Your task to perform on an android device: Turn on the flashlight Image 0: 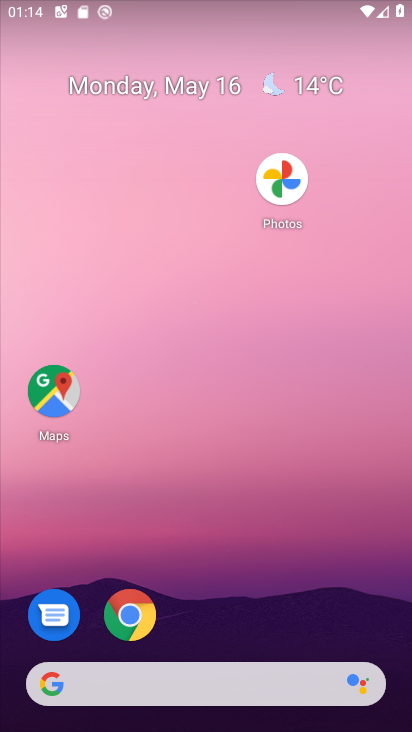
Step 0: drag from (361, 601) to (311, 223)
Your task to perform on an android device: Turn on the flashlight Image 1: 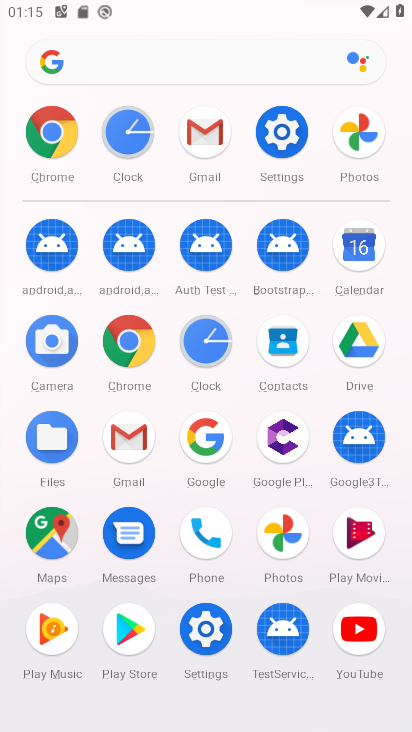
Step 1: click (285, 157)
Your task to perform on an android device: Turn on the flashlight Image 2: 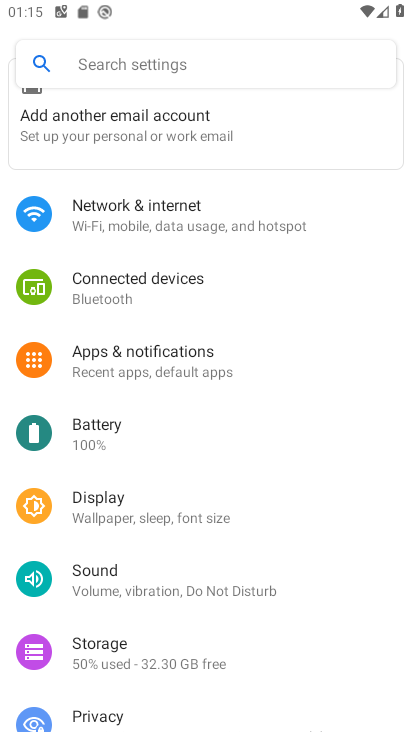
Step 2: type "flashlight"
Your task to perform on an android device: Turn on the flashlight Image 3: 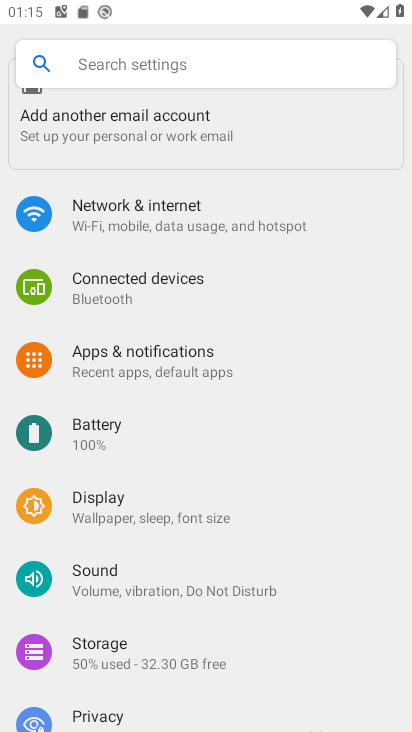
Step 3: click (183, 61)
Your task to perform on an android device: Turn on the flashlight Image 4: 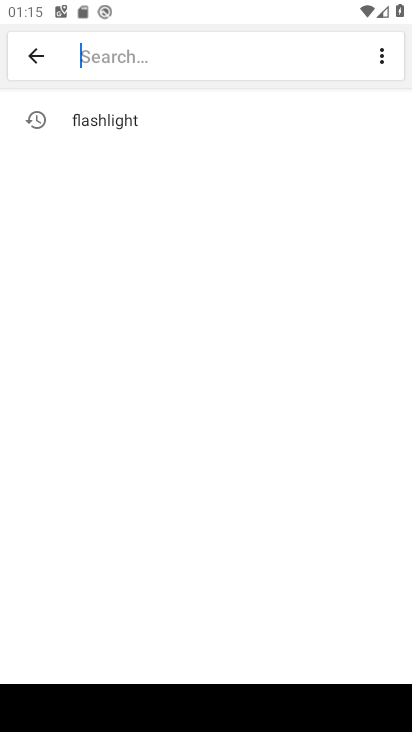
Step 4: type "fl"
Your task to perform on an android device: Turn on the flashlight Image 5: 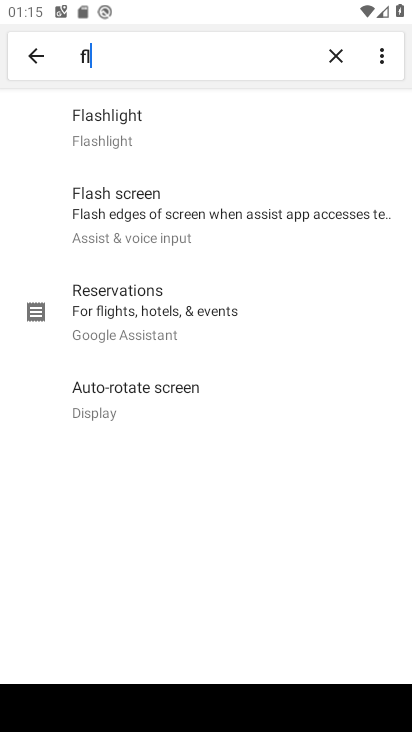
Step 5: type "flashlight"
Your task to perform on an android device: Turn on the flashlight Image 6: 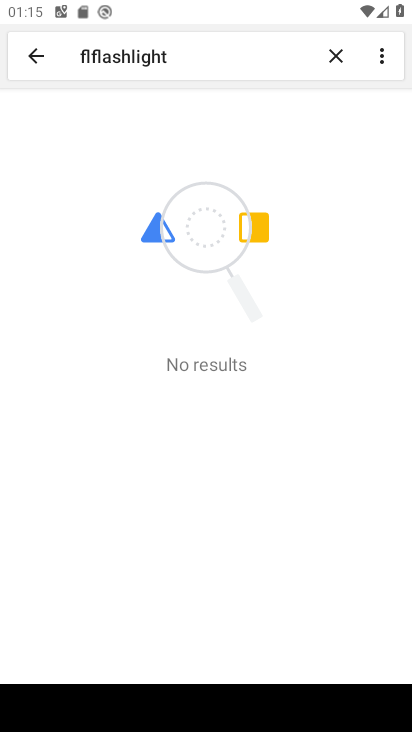
Step 6: click (173, 122)
Your task to perform on an android device: Turn on the flashlight Image 7: 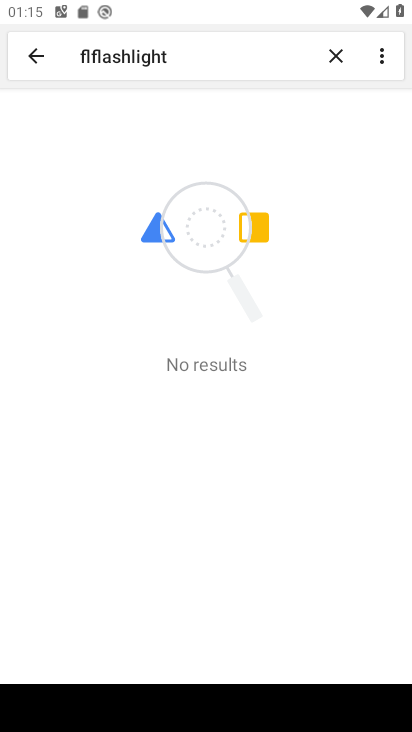
Step 7: click (338, 64)
Your task to perform on an android device: Turn on the flashlight Image 8: 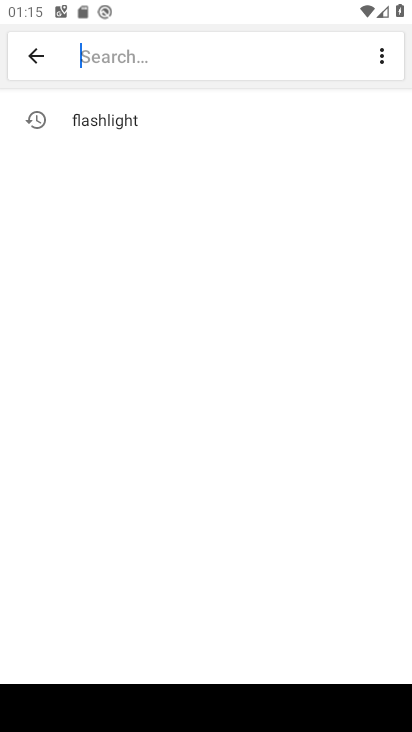
Step 8: click (190, 139)
Your task to perform on an android device: Turn on the flashlight Image 9: 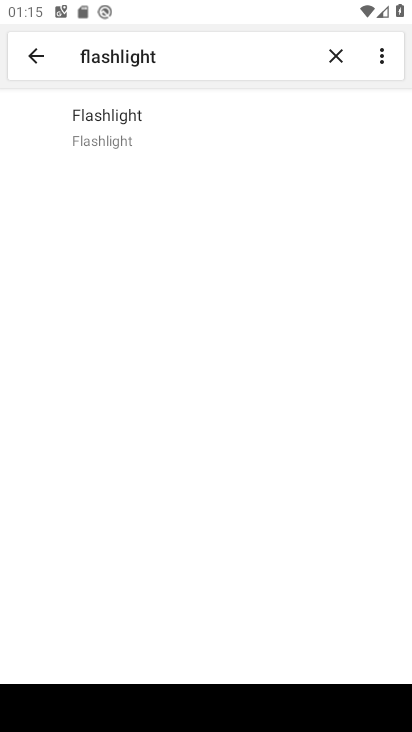
Step 9: task complete